Your task to perform on an android device: Open Chrome and go to settings Image 0: 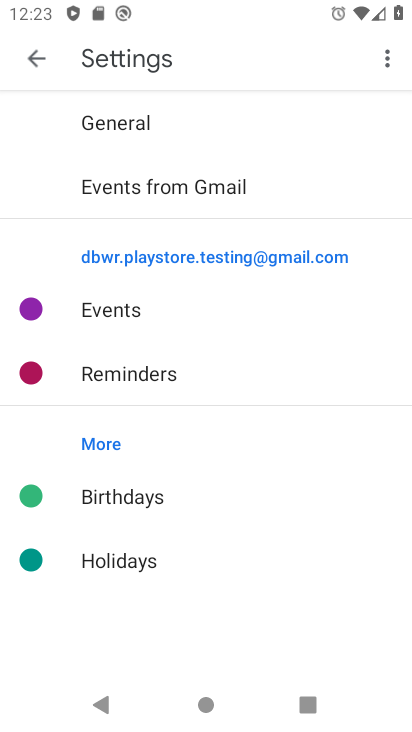
Step 0: drag from (220, 584) to (278, 342)
Your task to perform on an android device: Open Chrome and go to settings Image 1: 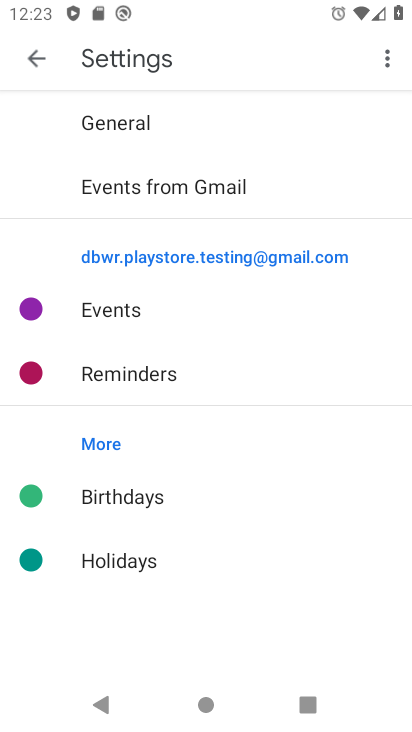
Step 1: drag from (175, 662) to (286, 316)
Your task to perform on an android device: Open Chrome and go to settings Image 2: 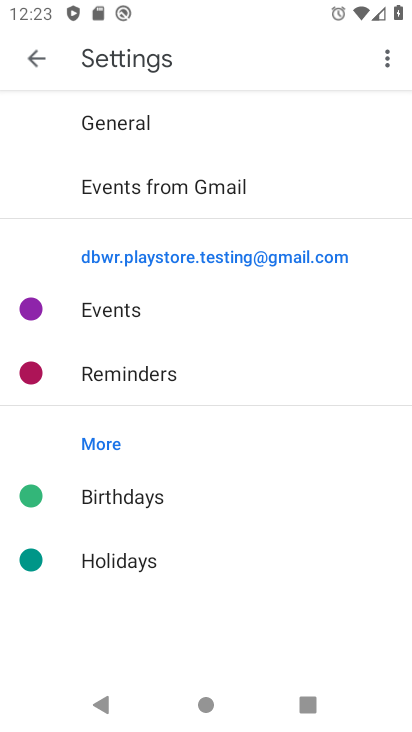
Step 2: press home button
Your task to perform on an android device: Open Chrome and go to settings Image 3: 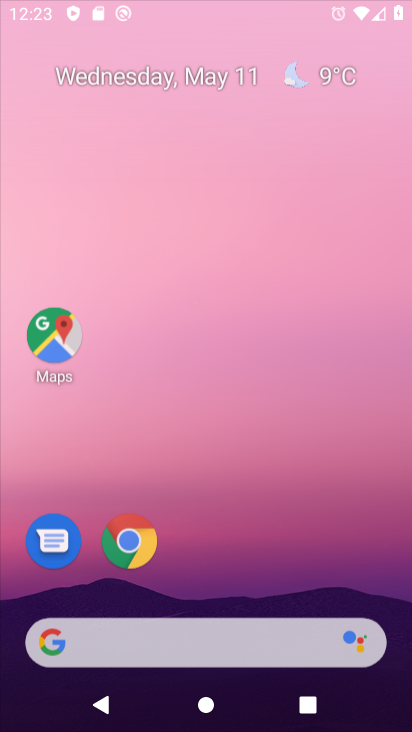
Step 3: drag from (290, 540) to (397, 185)
Your task to perform on an android device: Open Chrome and go to settings Image 4: 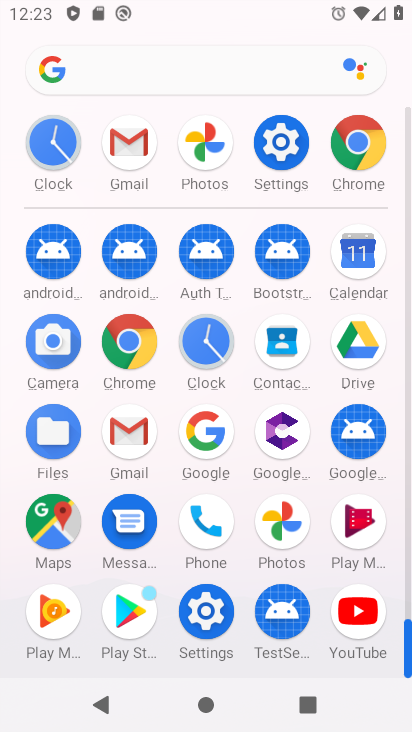
Step 4: click (131, 332)
Your task to perform on an android device: Open Chrome and go to settings Image 5: 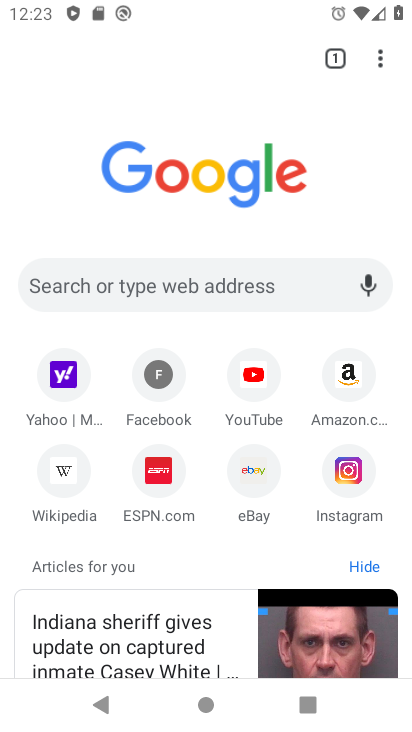
Step 5: click (386, 74)
Your task to perform on an android device: Open Chrome and go to settings Image 6: 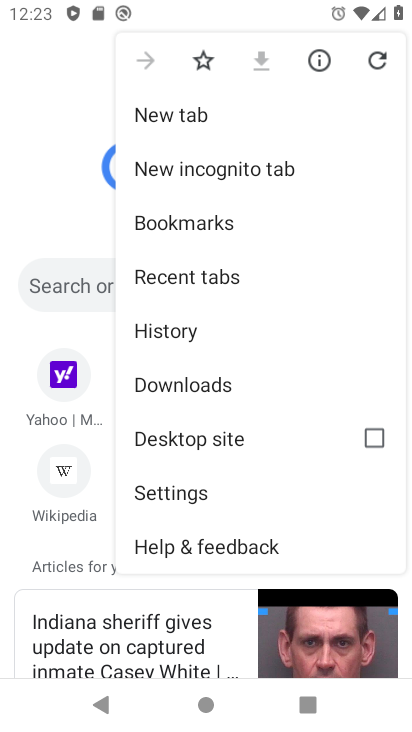
Step 6: drag from (283, 487) to (327, 86)
Your task to perform on an android device: Open Chrome and go to settings Image 7: 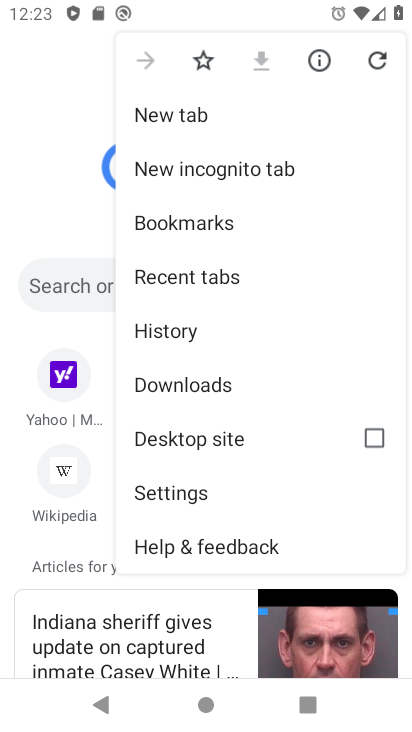
Step 7: click (178, 484)
Your task to perform on an android device: Open Chrome and go to settings Image 8: 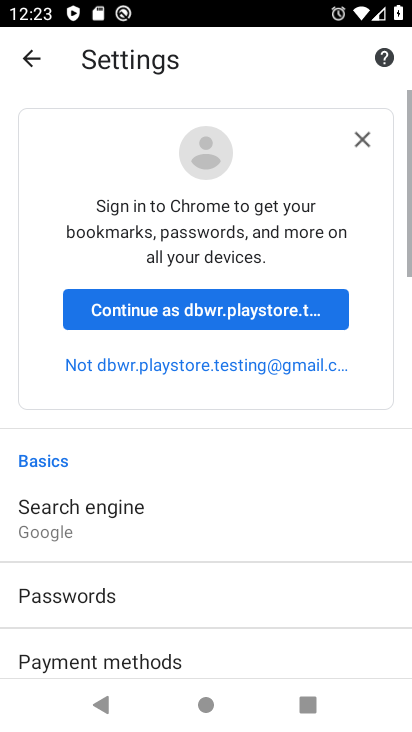
Step 8: task complete